Your task to perform on an android device: toggle data saver in the chrome app Image 0: 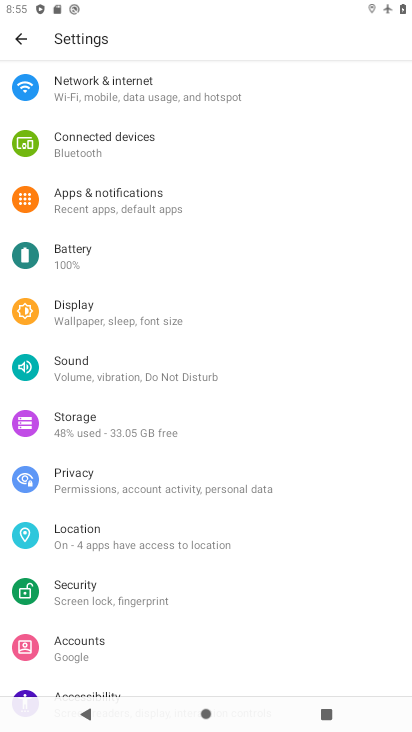
Step 0: press home button
Your task to perform on an android device: toggle data saver in the chrome app Image 1: 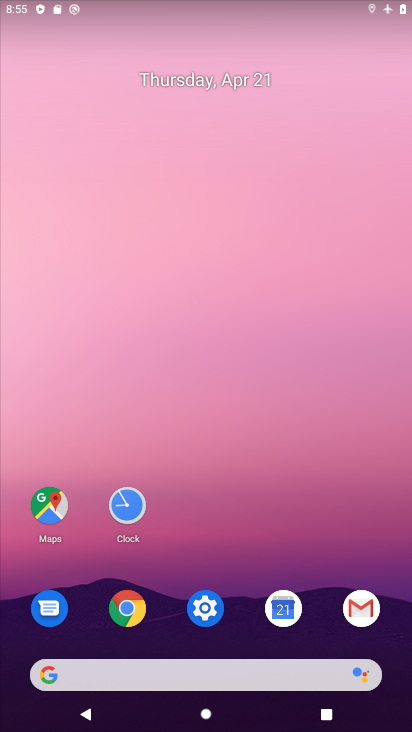
Step 1: click (126, 610)
Your task to perform on an android device: toggle data saver in the chrome app Image 2: 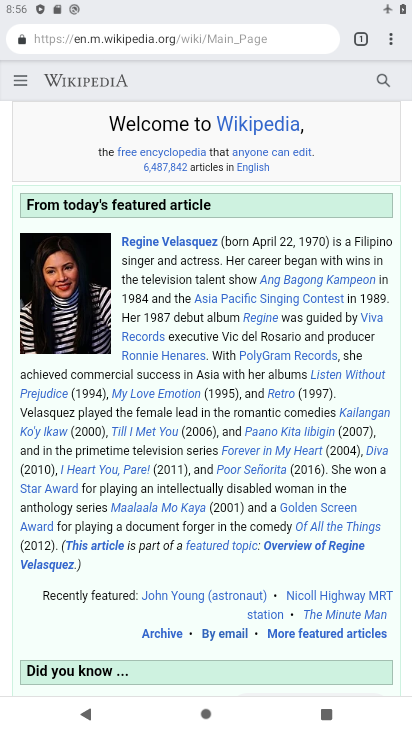
Step 2: click (389, 39)
Your task to perform on an android device: toggle data saver in the chrome app Image 3: 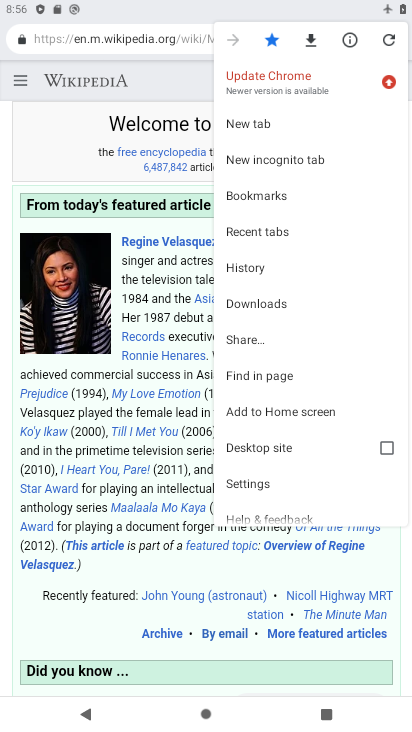
Step 3: click (254, 482)
Your task to perform on an android device: toggle data saver in the chrome app Image 4: 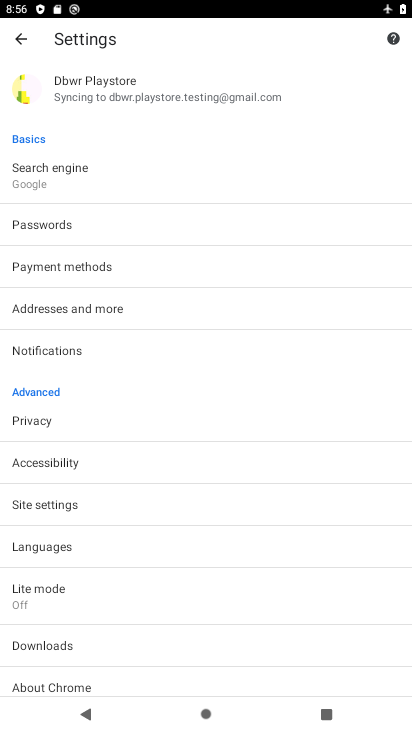
Step 4: click (40, 595)
Your task to perform on an android device: toggle data saver in the chrome app Image 5: 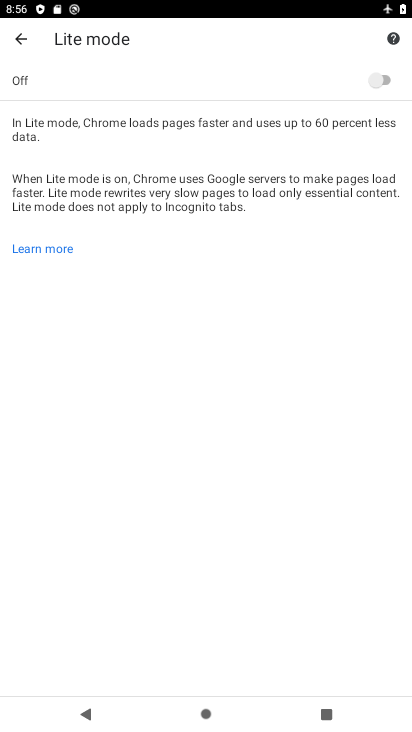
Step 5: click (379, 75)
Your task to perform on an android device: toggle data saver in the chrome app Image 6: 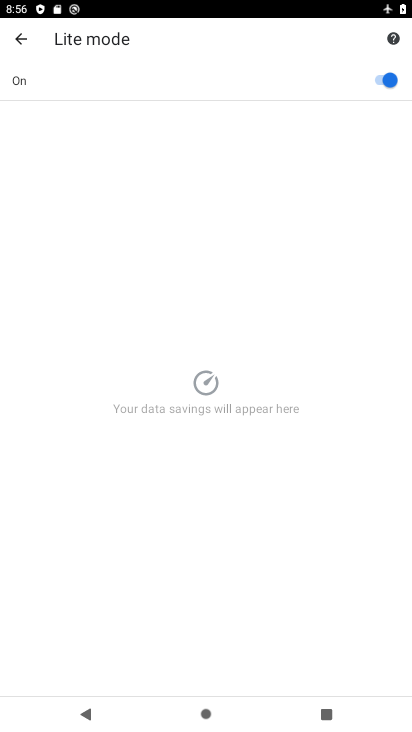
Step 6: task complete